Your task to perform on an android device: Show me recent news Image 0: 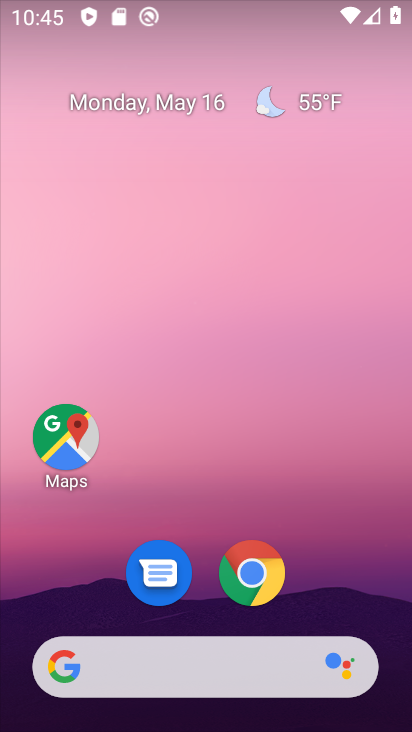
Step 0: drag from (183, 633) to (209, 374)
Your task to perform on an android device: Show me recent news Image 1: 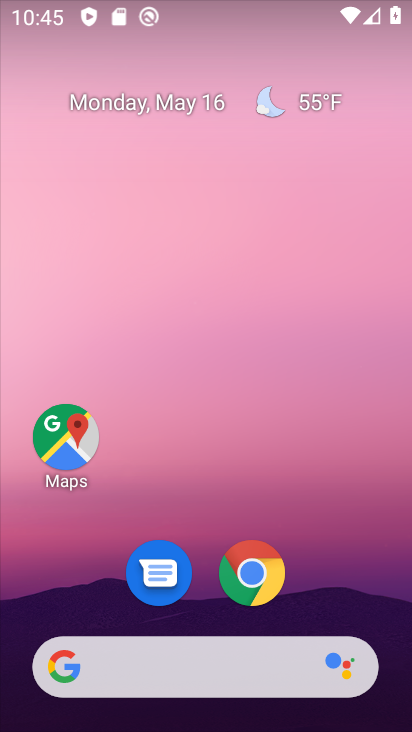
Step 1: drag from (215, 629) to (261, 251)
Your task to perform on an android device: Show me recent news Image 2: 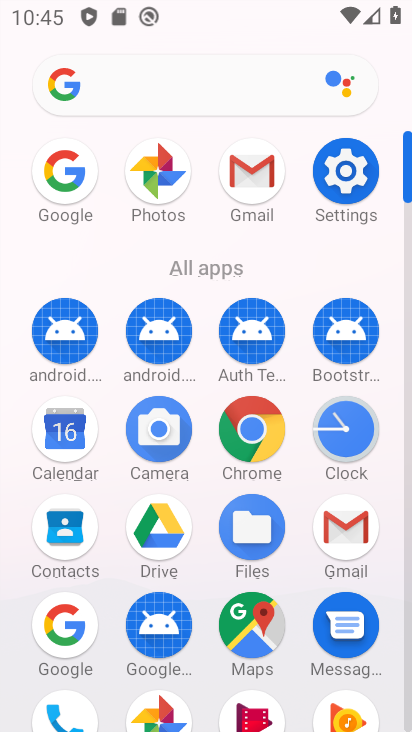
Step 2: click (63, 164)
Your task to perform on an android device: Show me recent news Image 3: 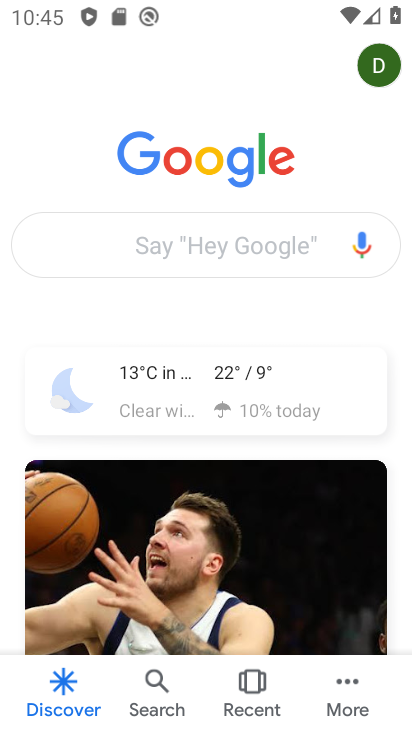
Step 3: click (149, 254)
Your task to perform on an android device: Show me recent news Image 4: 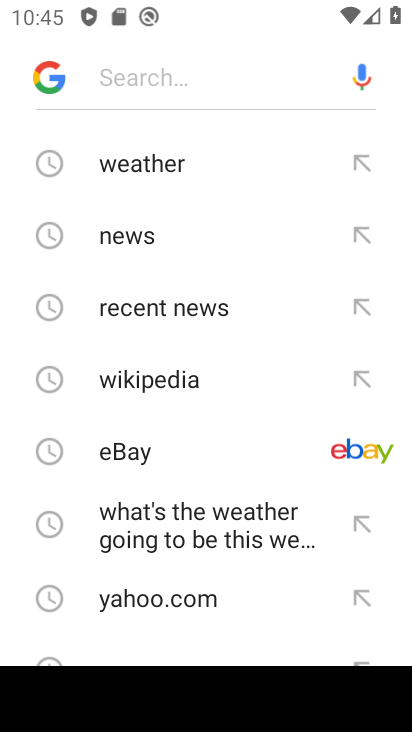
Step 4: click (161, 307)
Your task to perform on an android device: Show me recent news Image 5: 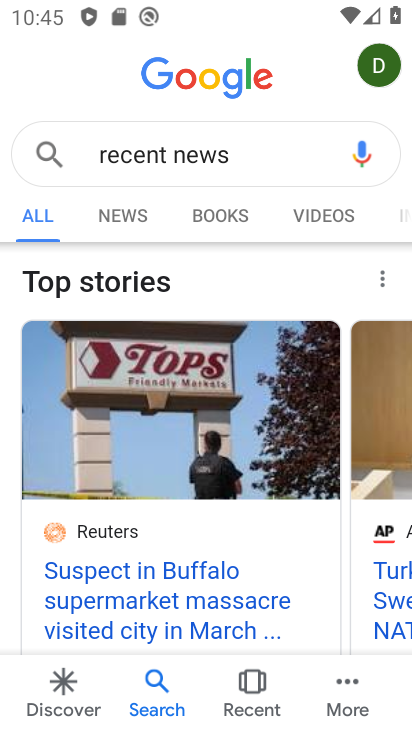
Step 5: task complete